Your task to perform on an android device: Open calendar and show me the first week of next month Image 0: 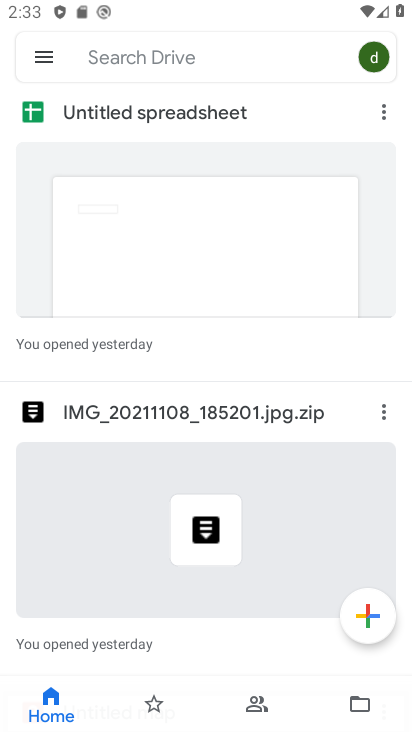
Step 0: press home button
Your task to perform on an android device: Open calendar and show me the first week of next month Image 1: 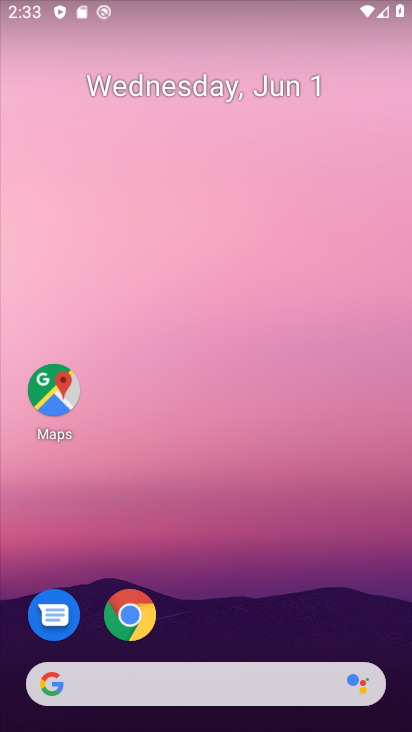
Step 1: drag from (217, 619) to (143, 23)
Your task to perform on an android device: Open calendar and show me the first week of next month Image 2: 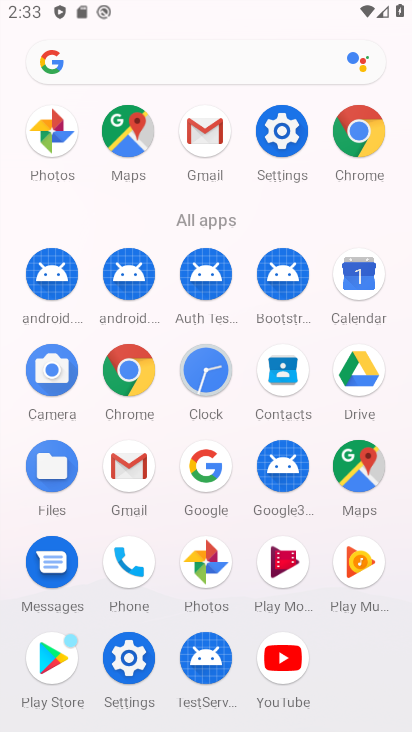
Step 2: click (353, 292)
Your task to perform on an android device: Open calendar and show me the first week of next month Image 3: 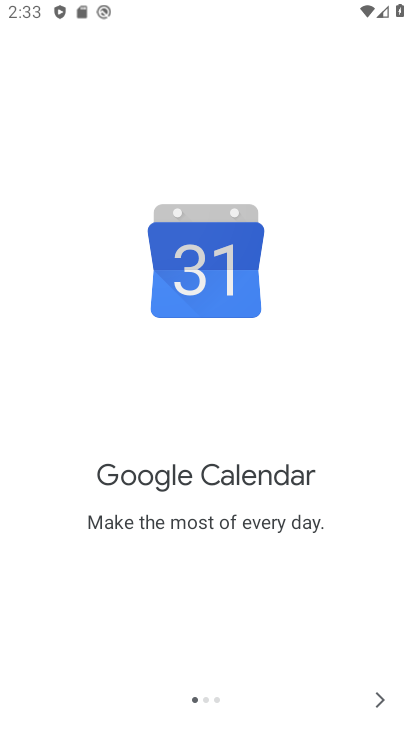
Step 3: click (376, 704)
Your task to perform on an android device: Open calendar and show me the first week of next month Image 4: 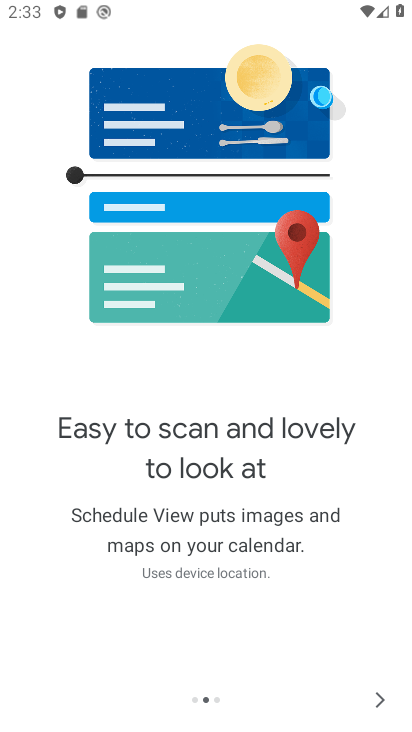
Step 4: click (376, 704)
Your task to perform on an android device: Open calendar and show me the first week of next month Image 5: 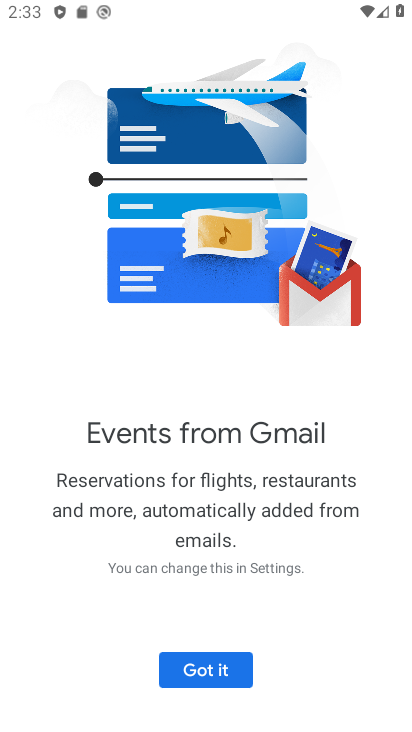
Step 5: click (200, 676)
Your task to perform on an android device: Open calendar and show me the first week of next month Image 6: 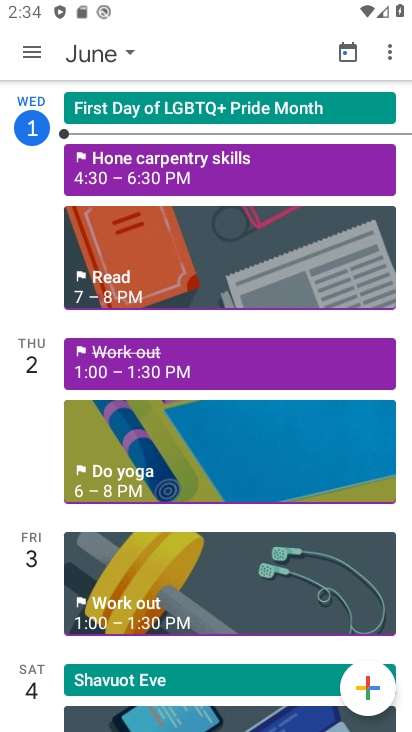
Step 6: click (9, 54)
Your task to perform on an android device: Open calendar and show me the first week of next month Image 7: 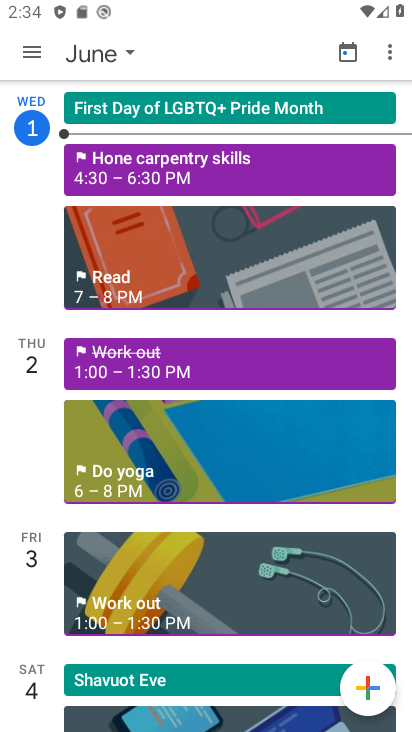
Step 7: click (32, 58)
Your task to perform on an android device: Open calendar and show me the first week of next month Image 8: 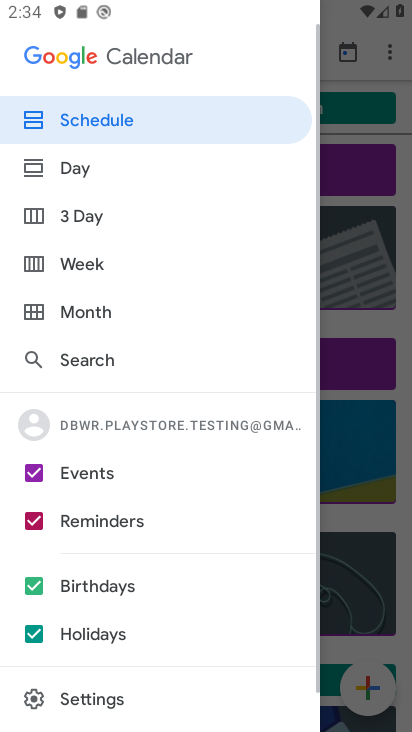
Step 8: click (85, 261)
Your task to perform on an android device: Open calendar and show me the first week of next month Image 9: 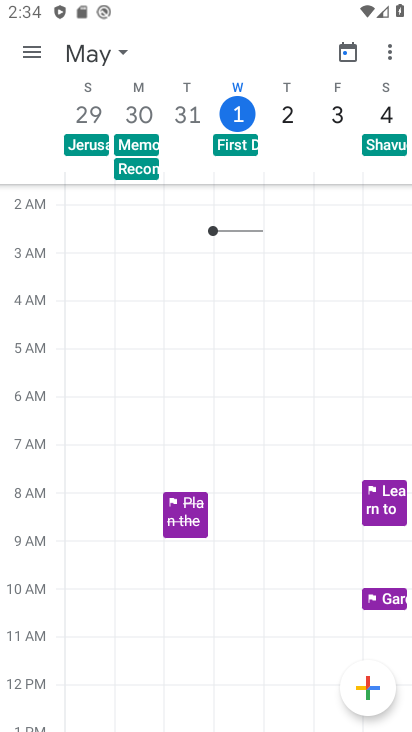
Step 9: click (94, 43)
Your task to perform on an android device: Open calendar and show me the first week of next month Image 10: 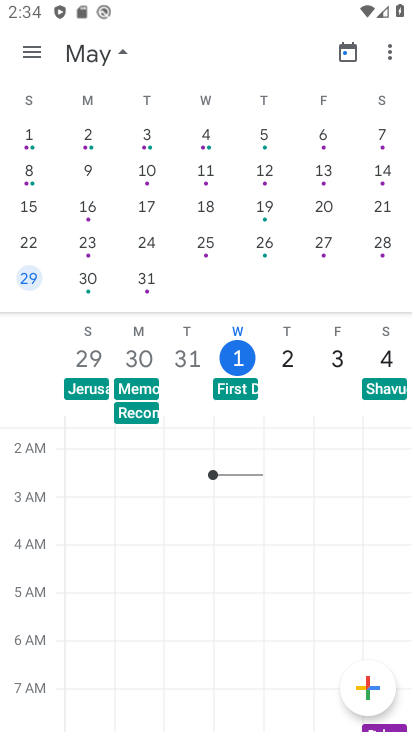
Step 10: task complete